Your task to perform on an android device: Clear the cart on costco.com. Add macbook pro 13 inch to the cart on costco.com Image 0: 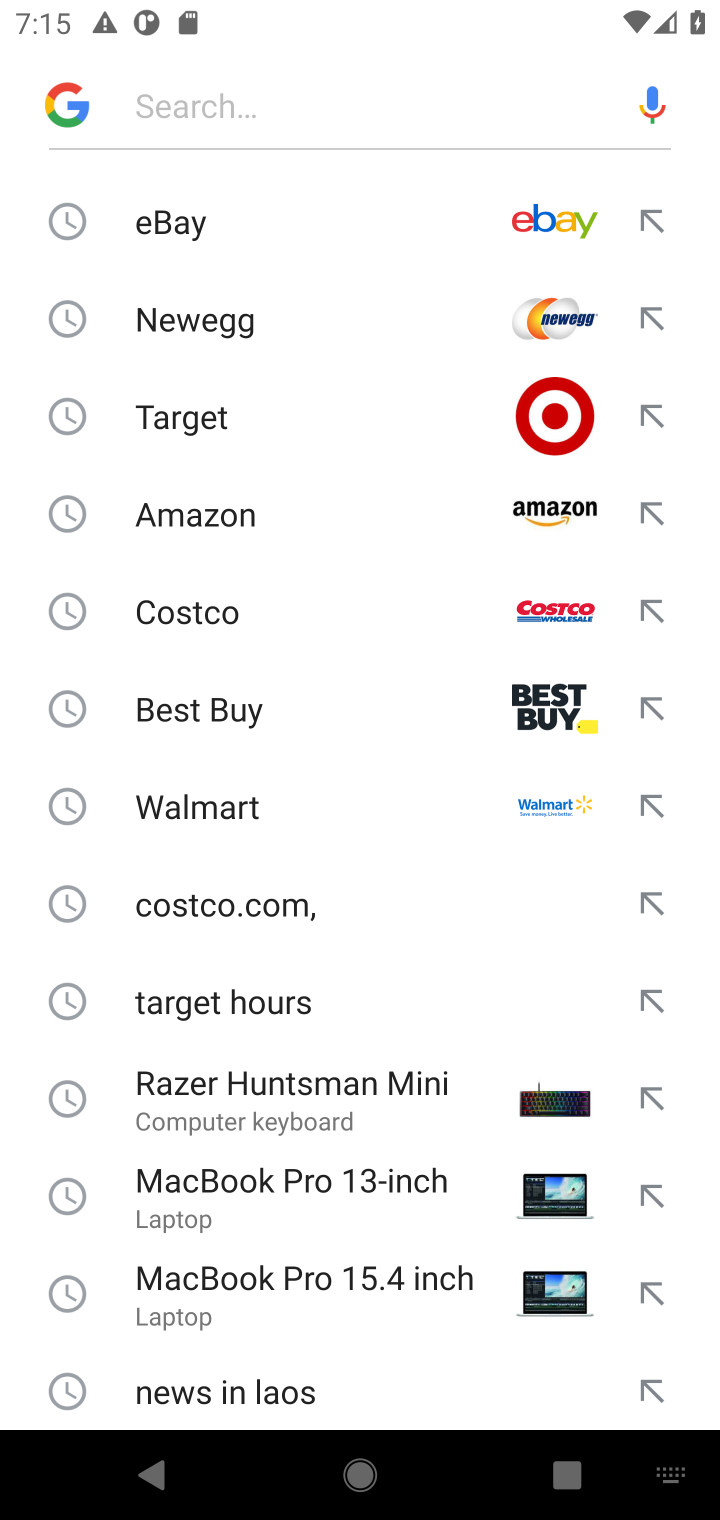
Step 0: click (162, 607)
Your task to perform on an android device: Clear the cart on costco.com. Add macbook pro 13 inch to the cart on costco.com Image 1: 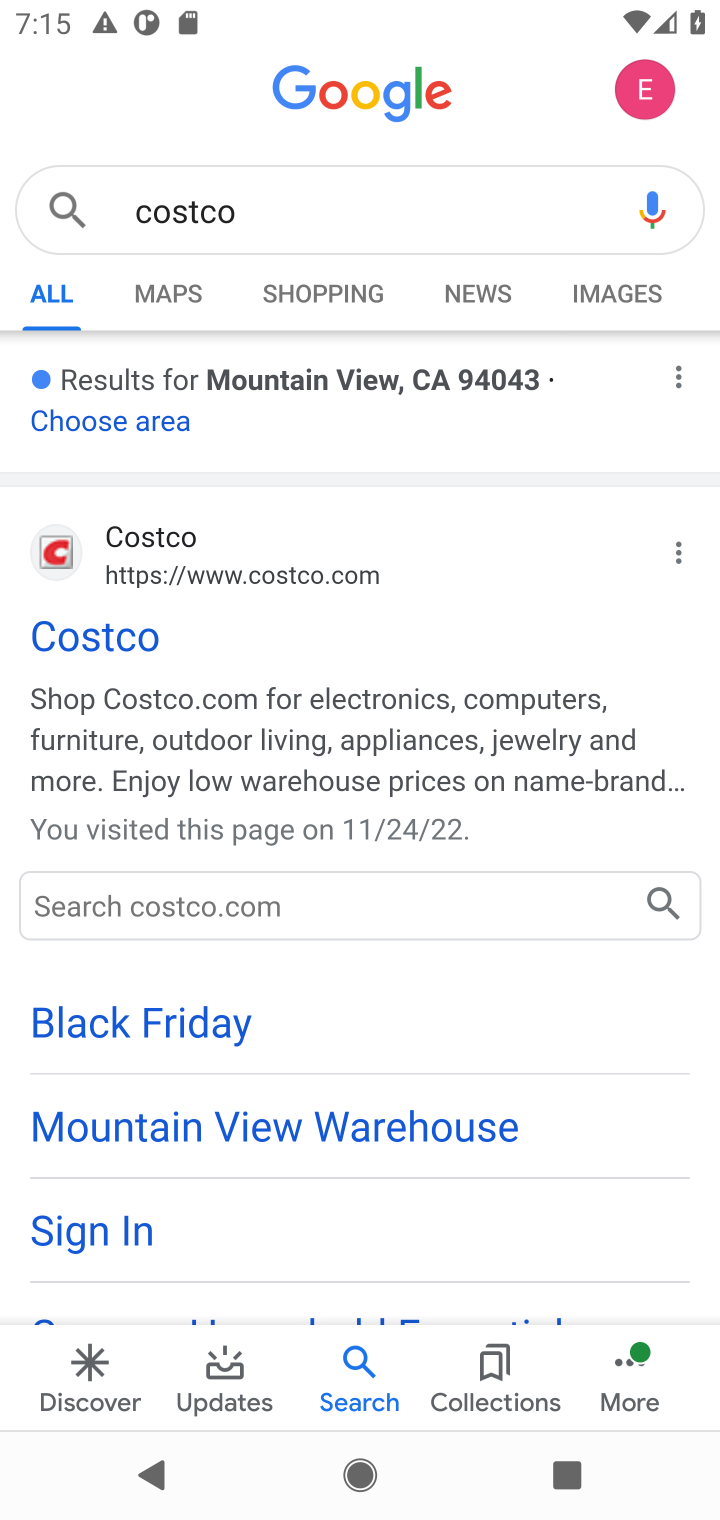
Step 1: click (112, 627)
Your task to perform on an android device: Clear the cart on costco.com. Add macbook pro 13 inch to the cart on costco.com Image 2: 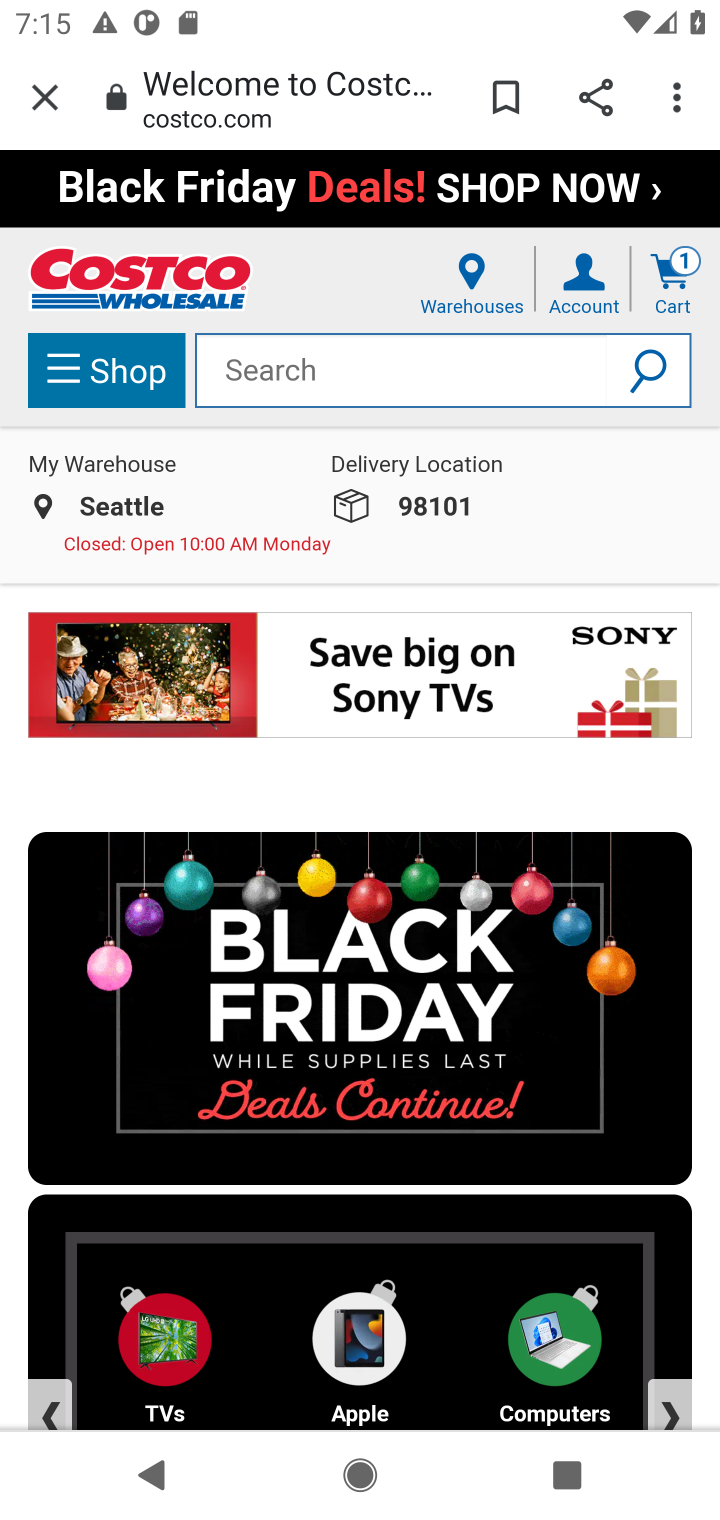
Step 2: click (689, 278)
Your task to perform on an android device: Clear the cart on costco.com. Add macbook pro 13 inch to the cart on costco.com Image 3: 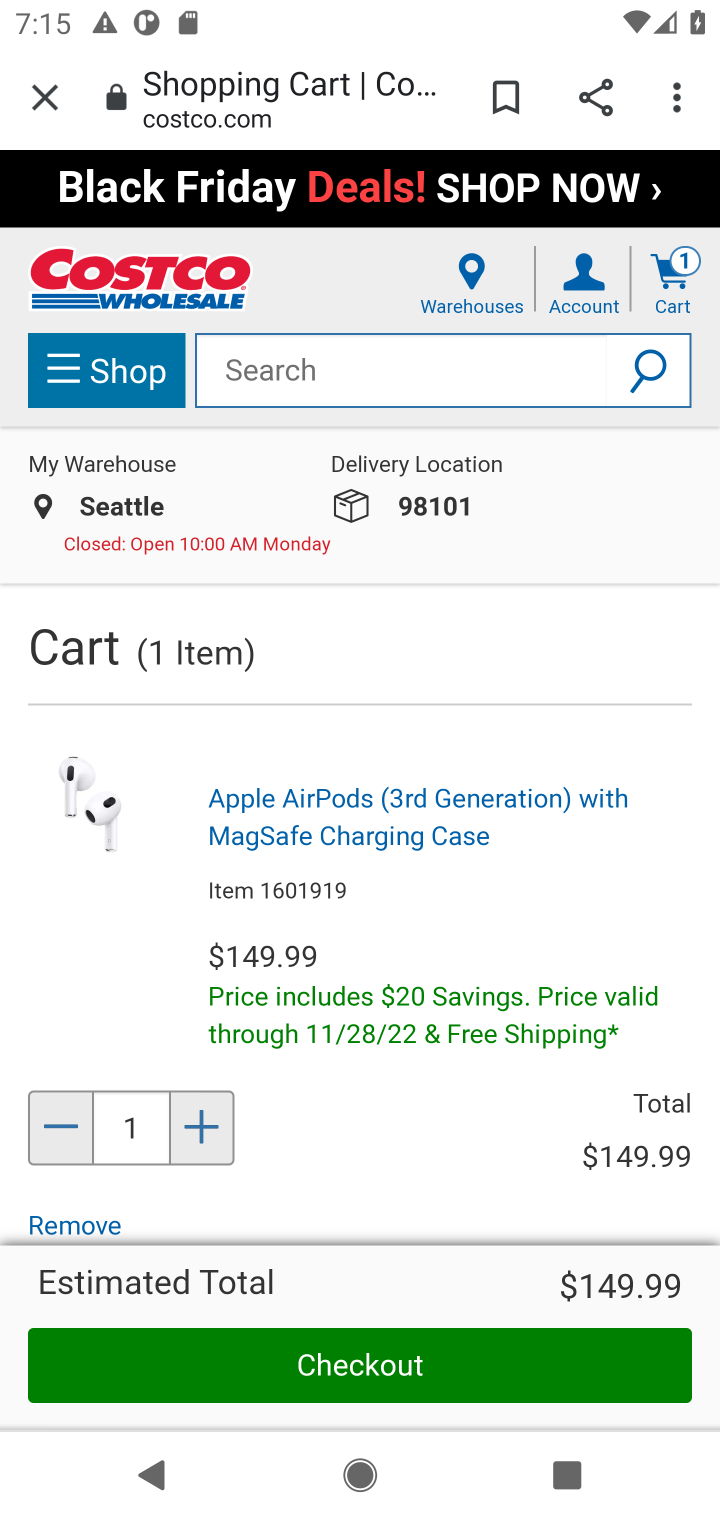
Step 3: drag from (373, 1054) to (443, 514)
Your task to perform on an android device: Clear the cart on costco.com. Add macbook pro 13 inch to the cart on costco.com Image 4: 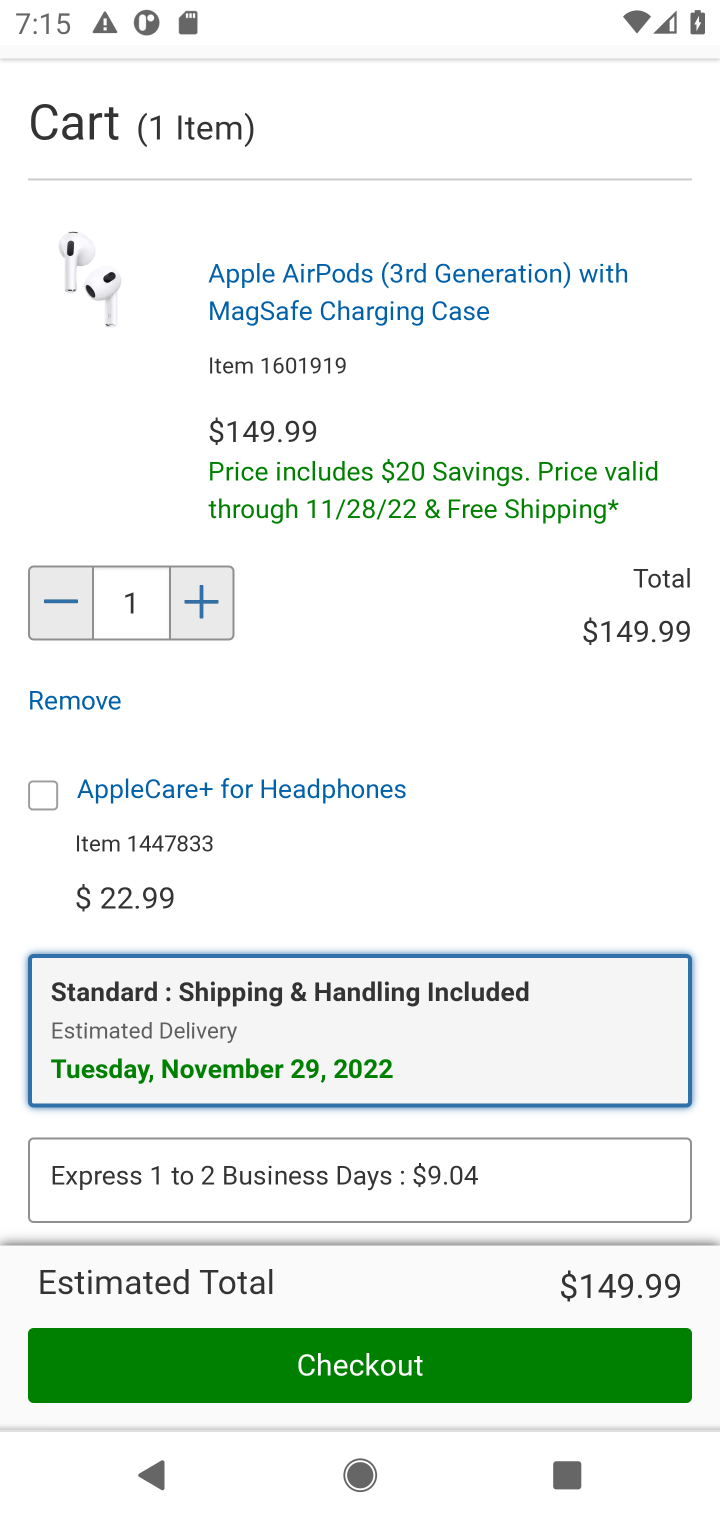
Step 4: drag from (414, 909) to (423, 778)
Your task to perform on an android device: Clear the cart on costco.com. Add macbook pro 13 inch to the cart on costco.com Image 5: 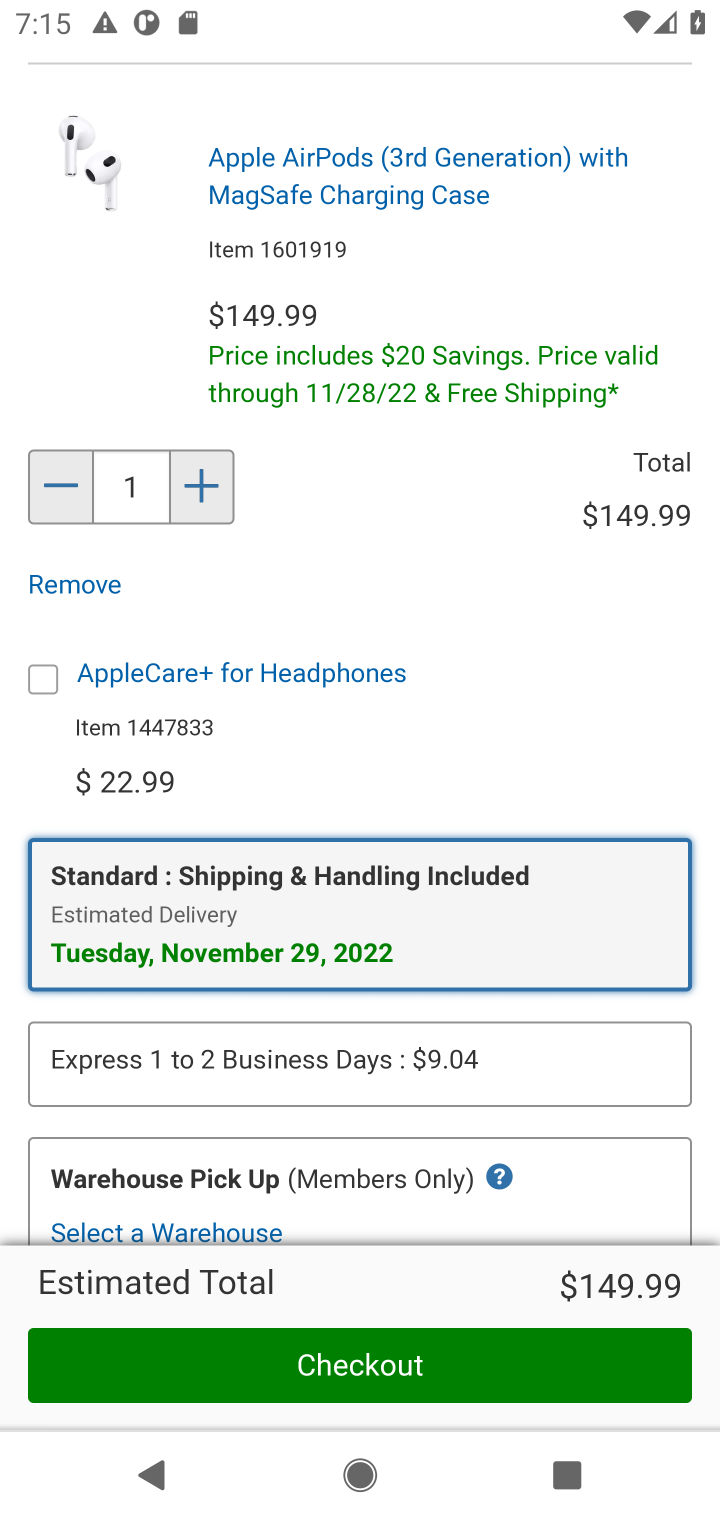
Step 5: drag from (482, 1134) to (506, 708)
Your task to perform on an android device: Clear the cart on costco.com. Add macbook pro 13 inch to the cart on costco.com Image 6: 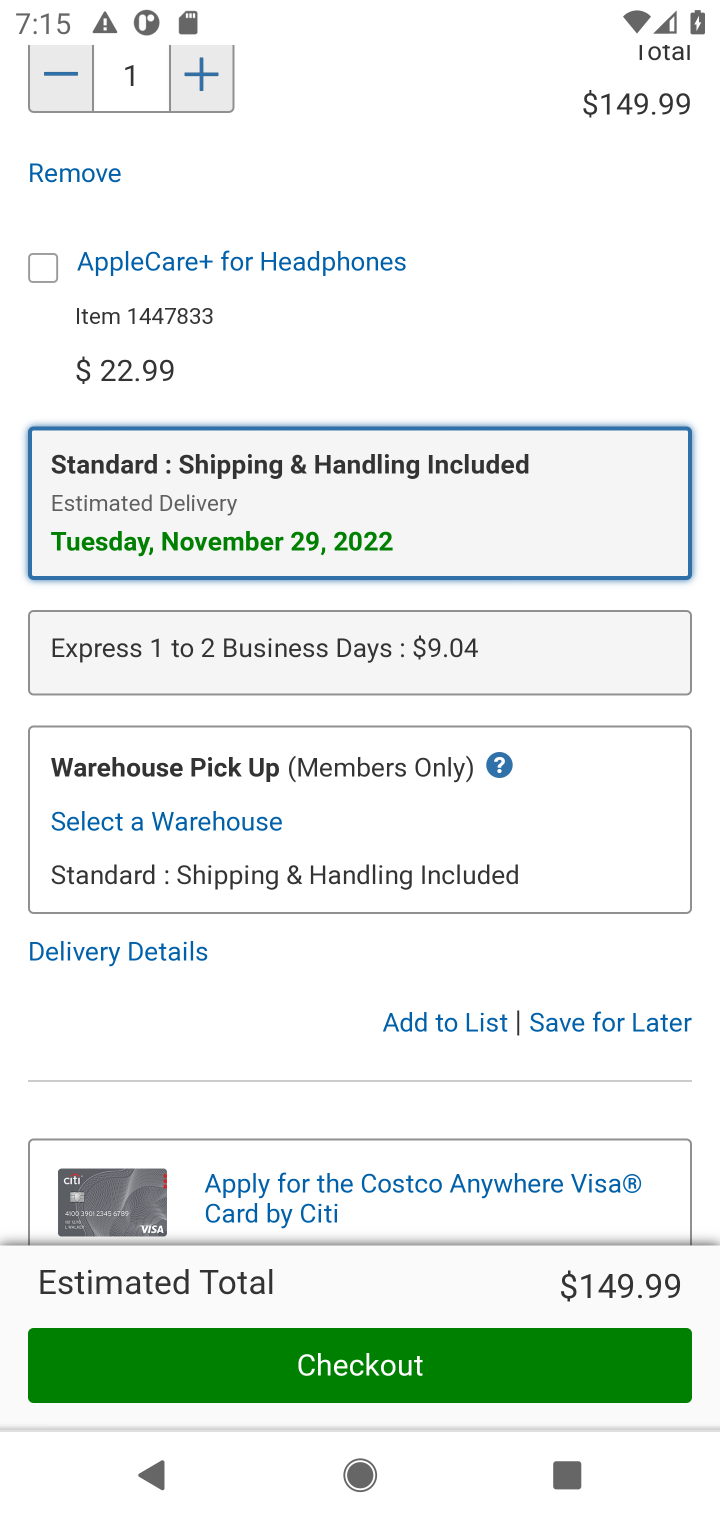
Step 6: click (604, 1028)
Your task to perform on an android device: Clear the cart on costco.com. Add macbook pro 13 inch to the cart on costco.com Image 7: 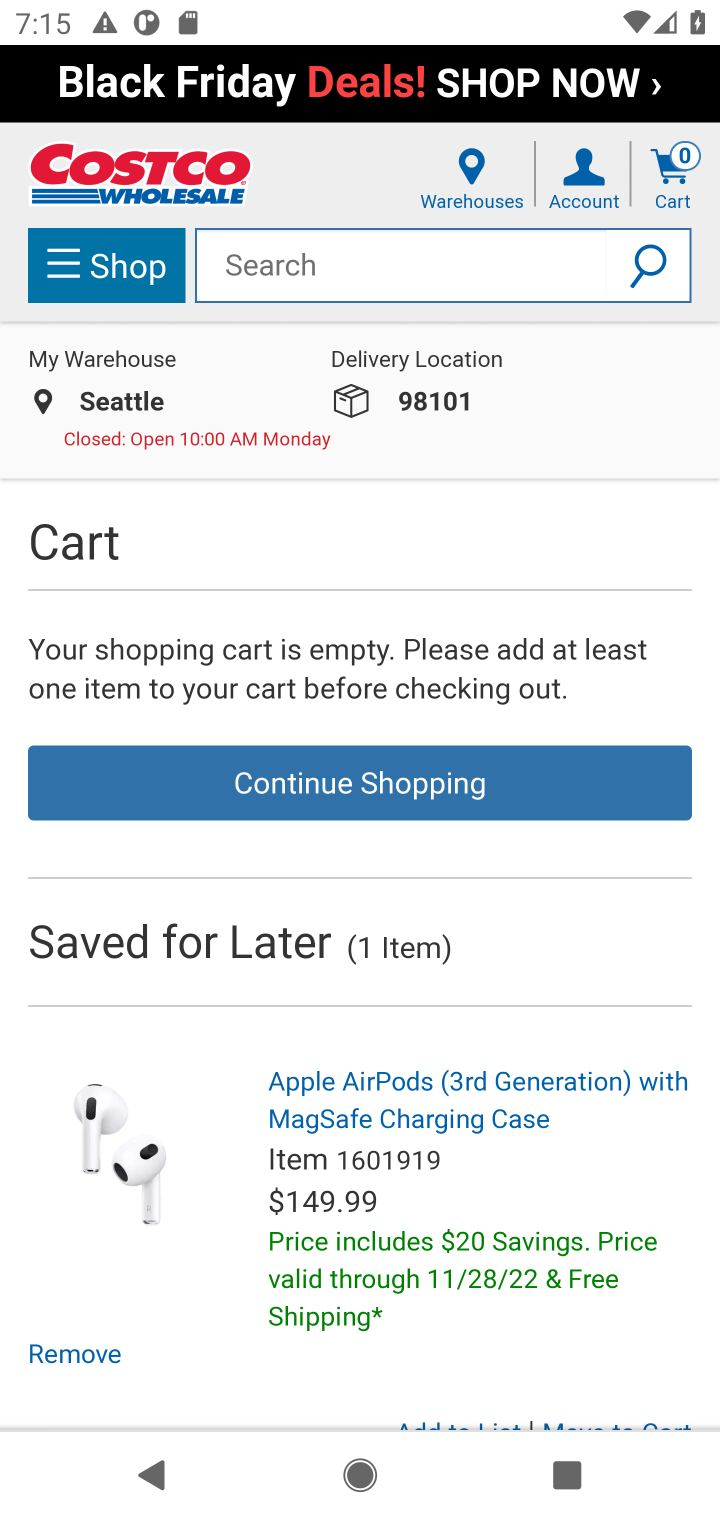
Step 7: click (333, 262)
Your task to perform on an android device: Clear the cart on costco.com. Add macbook pro 13 inch to the cart on costco.com Image 8: 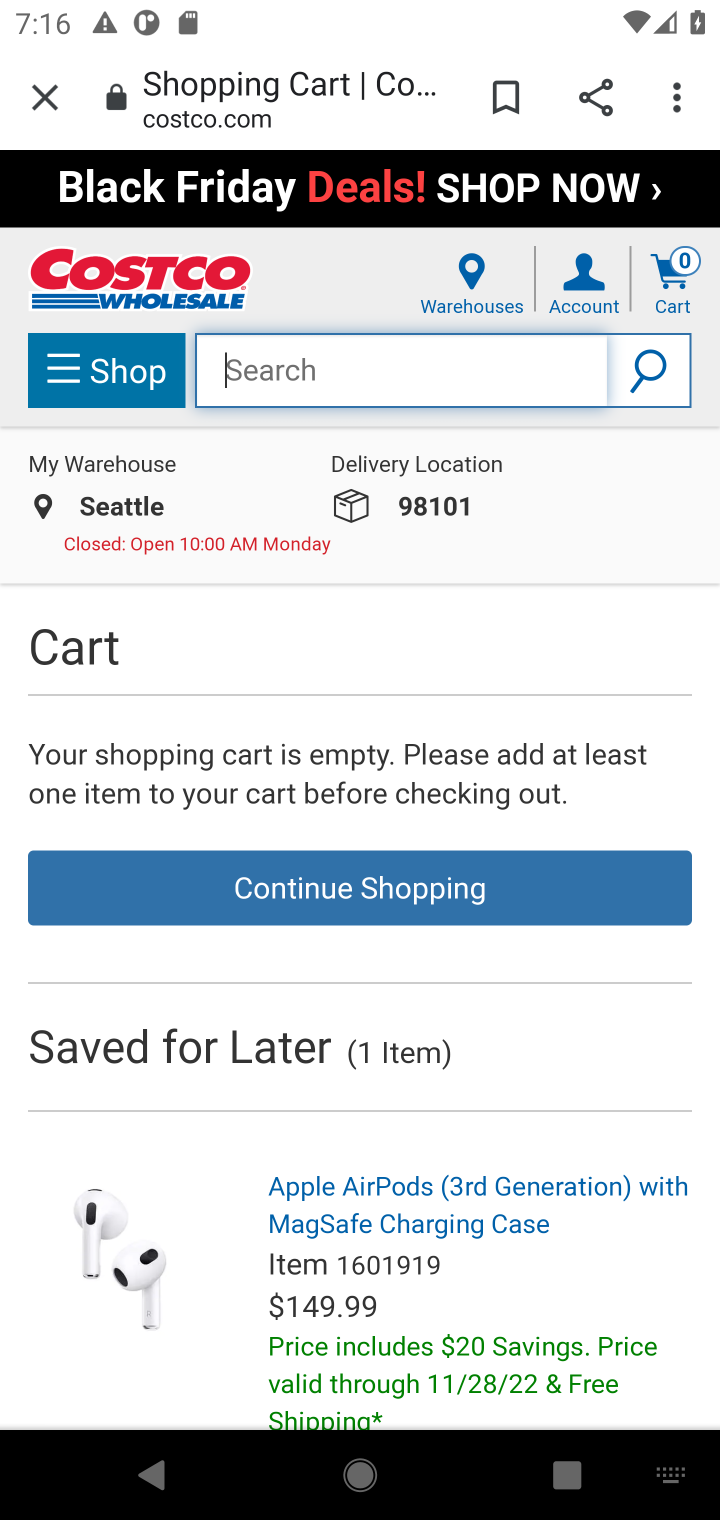
Step 8: type "macbook pro 13 inch"
Your task to perform on an android device: Clear the cart on costco.com. Add macbook pro 13 inch to the cart on costco.com Image 9: 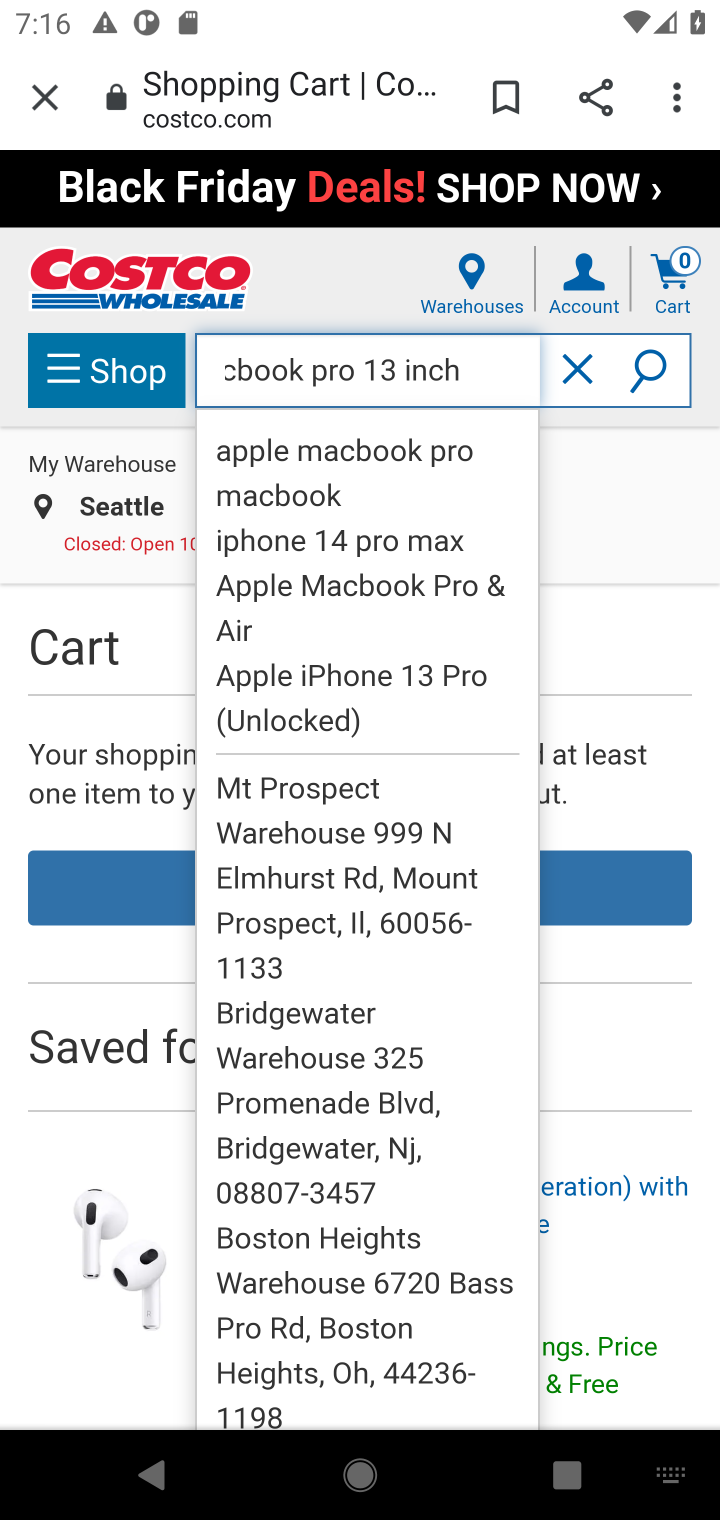
Step 9: click (657, 369)
Your task to perform on an android device: Clear the cart on costco.com. Add macbook pro 13 inch to the cart on costco.com Image 10: 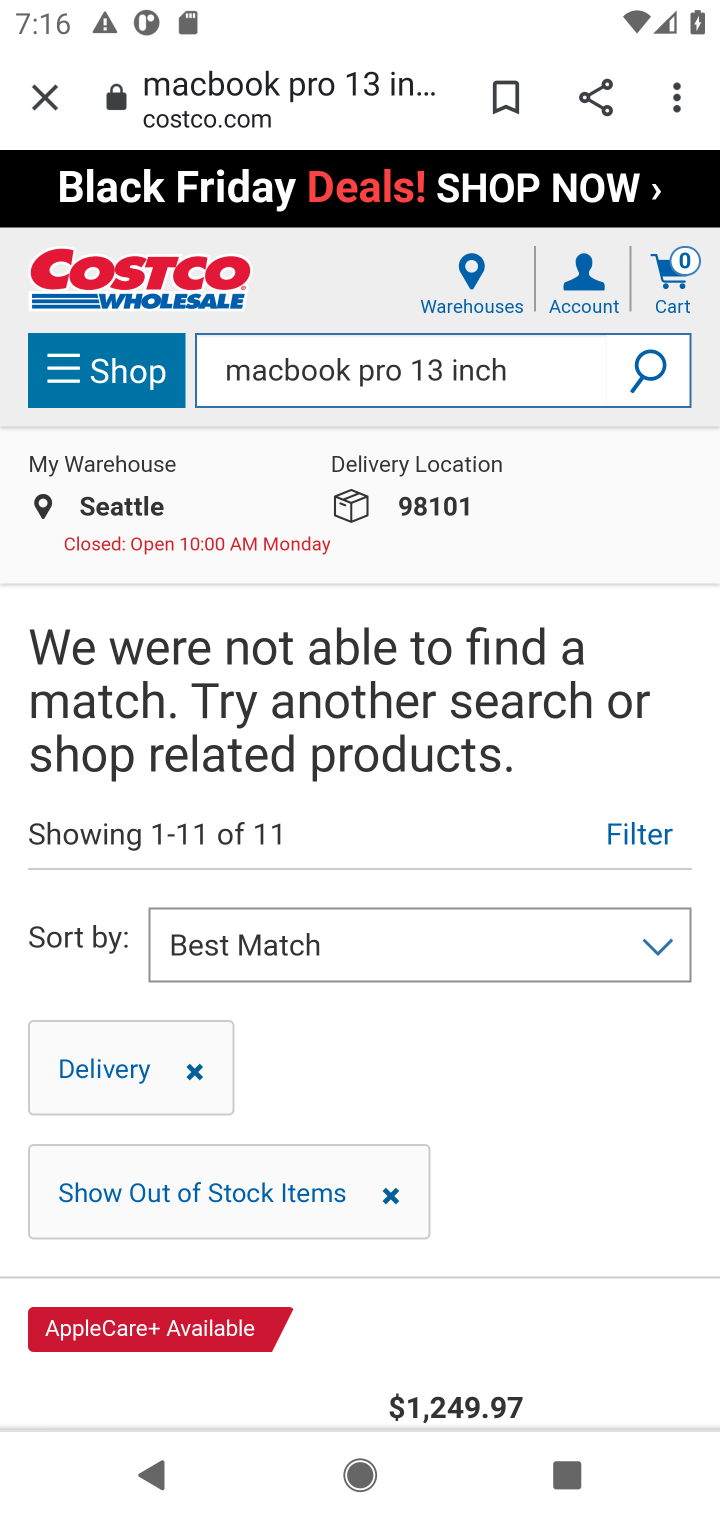
Step 10: task complete